Your task to perform on an android device: turn on translation in the chrome app Image 0: 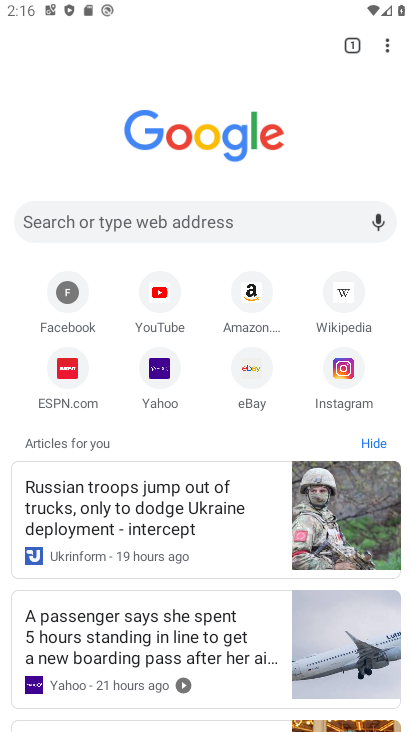
Step 0: press home button
Your task to perform on an android device: turn on translation in the chrome app Image 1: 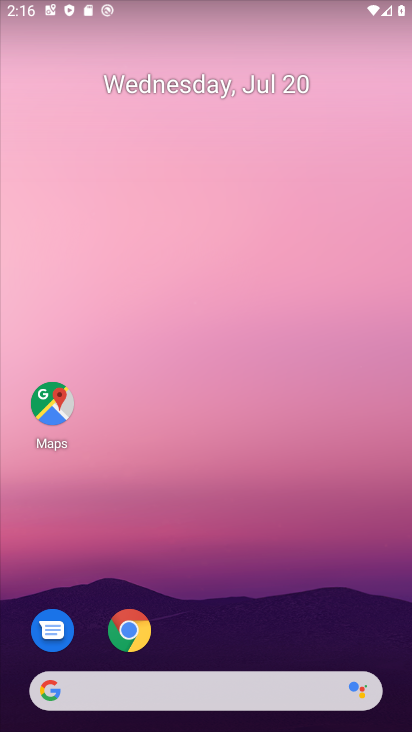
Step 1: drag from (352, 625) to (347, 154)
Your task to perform on an android device: turn on translation in the chrome app Image 2: 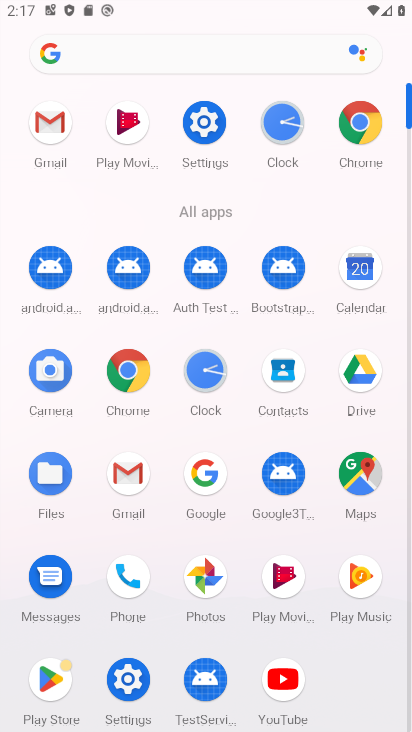
Step 2: click (135, 372)
Your task to perform on an android device: turn on translation in the chrome app Image 3: 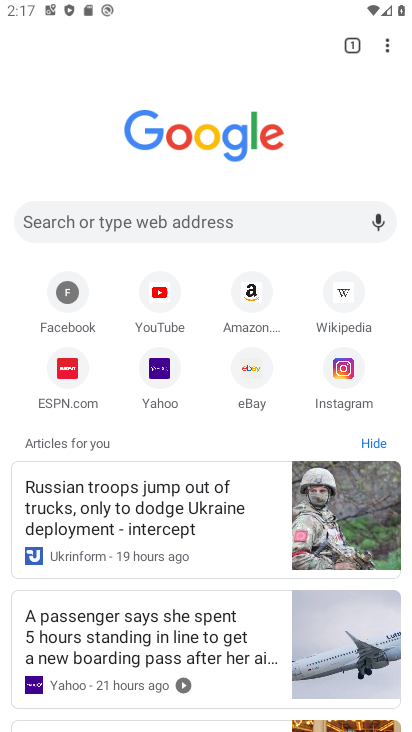
Step 3: click (387, 48)
Your task to perform on an android device: turn on translation in the chrome app Image 4: 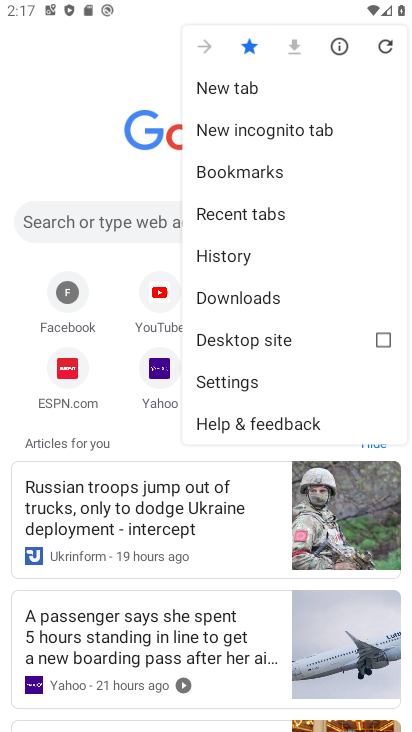
Step 4: click (249, 382)
Your task to perform on an android device: turn on translation in the chrome app Image 5: 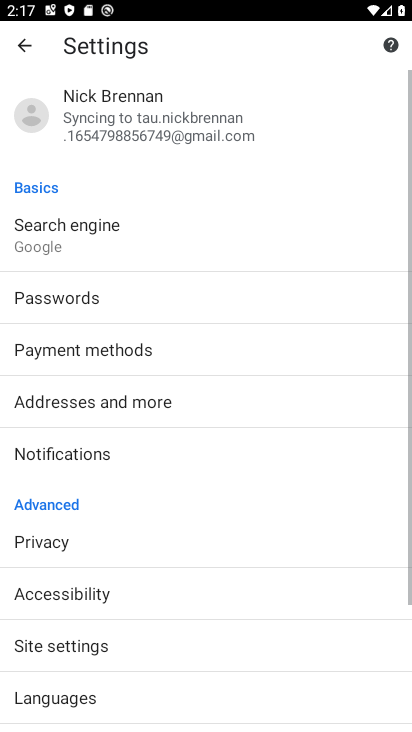
Step 5: drag from (269, 489) to (281, 422)
Your task to perform on an android device: turn on translation in the chrome app Image 6: 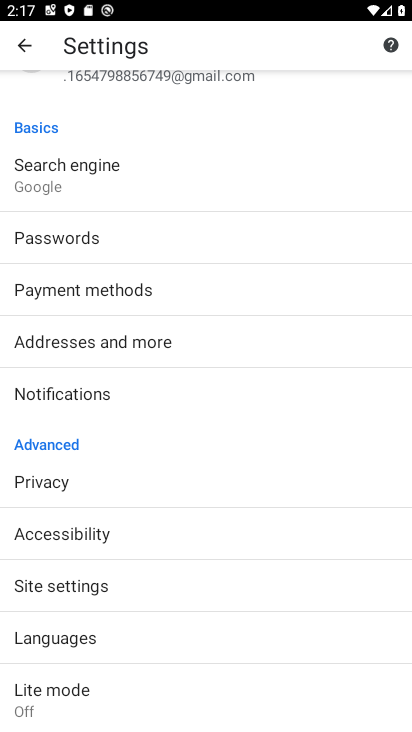
Step 6: drag from (289, 533) to (302, 443)
Your task to perform on an android device: turn on translation in the chrome app Image 7: 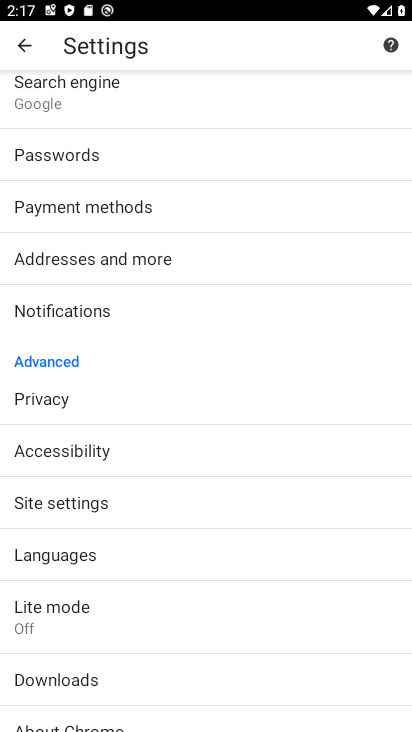
Step 7: drag from (311, 515) to (311, 417)
Your task to perform on an android device: turn on translation in the chrome app Image 8: 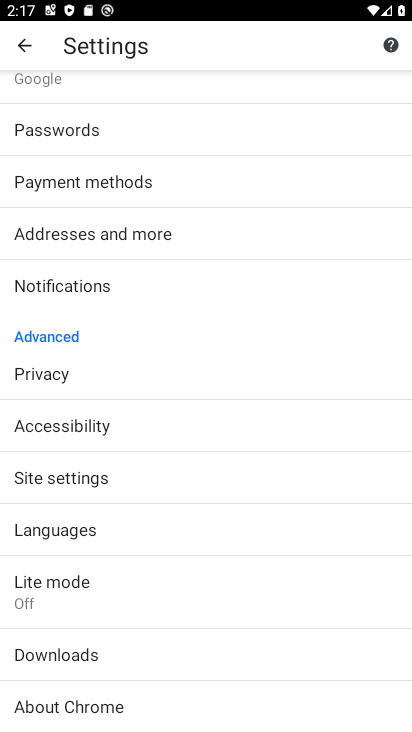
Step 8: click (312, 536)
Your task to perform on an android device: turn on translation in the chrome app Image 9: 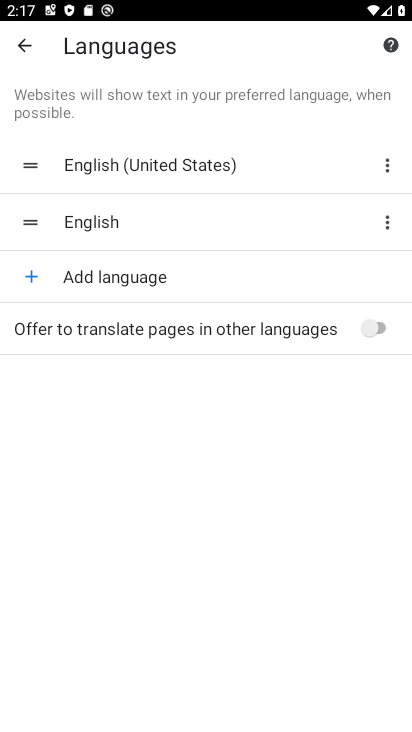
Step 9: click (378, 329)
Your task to perform on an android device: turn on translation in the chrome app Image 10: 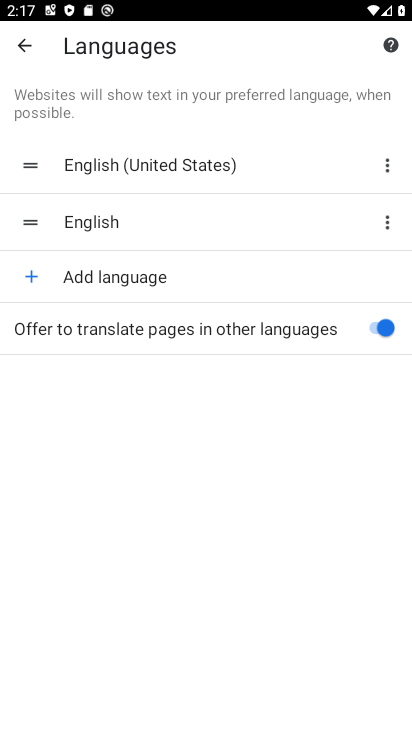
Step 10: task complete